Your task to perform on an android device: Do I have any events this weekend? Image 0: 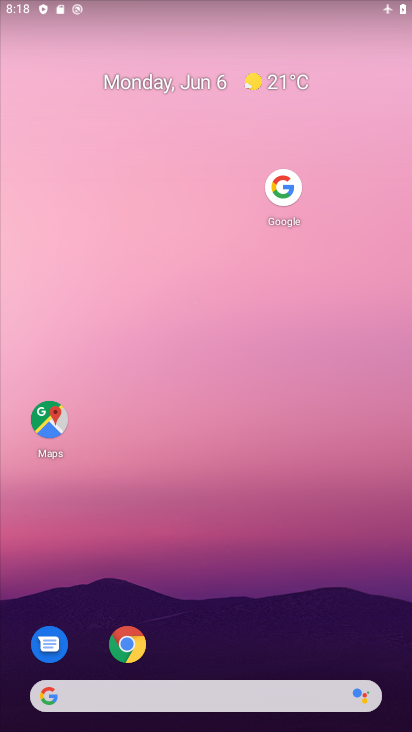
Step 0: drag from (207, 656) to (386, 554)
Your task to perform on an android device: Do I have any events this weekend? Image 1: 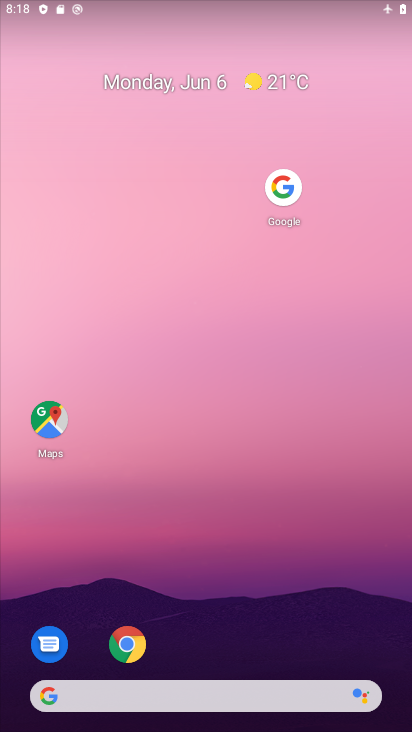
Step 1: drag from (238, 679) to (178, 52)
Your task to perform on an android device: Do I have any events this weekend? Image 2: 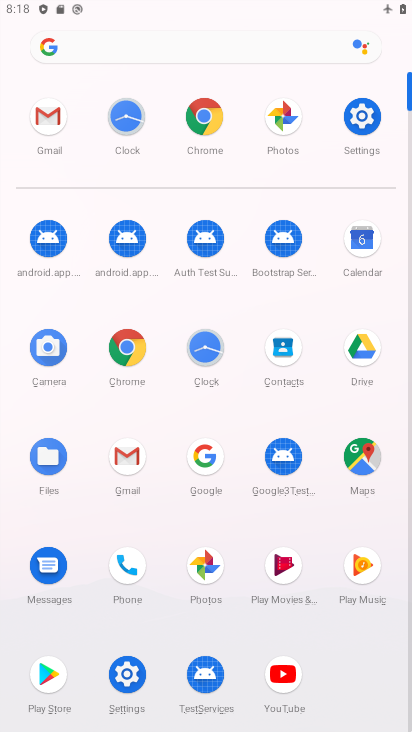
Step 2: click (345, 249)
Your task to perform on an android device: Do I have any events this weekend? Image 3: 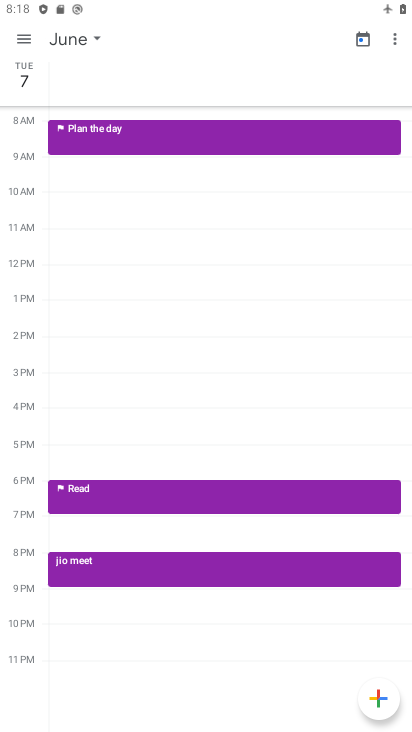
Step 3: click (20, 32)
Your task to perform on an android device: Do I have any events this weekend? Image 4: 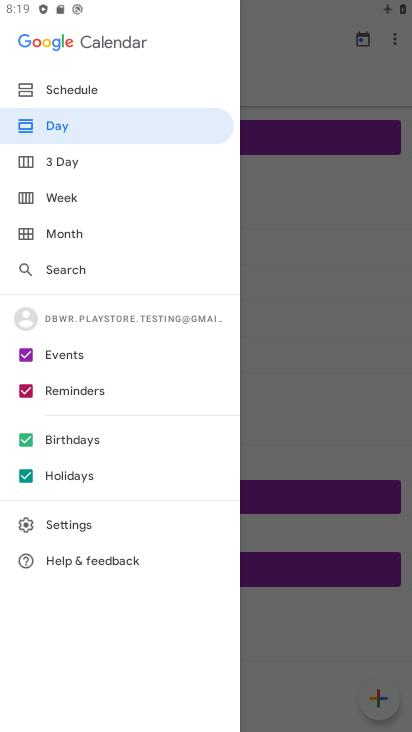
Step 4: click (64, 199)
Your task to perform on an android device: Do I have any events this weekend? Image 5: 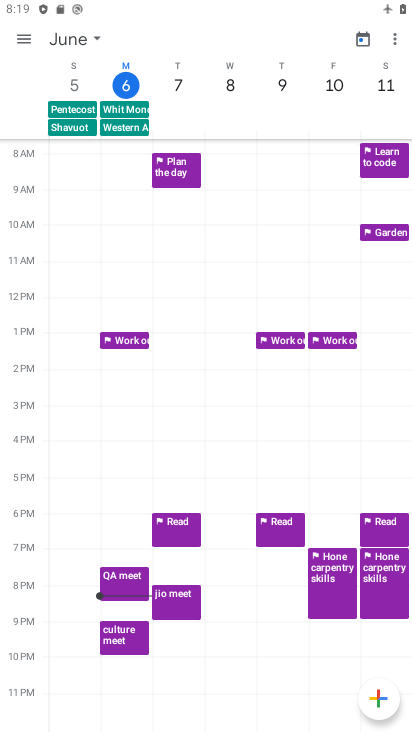
Step 5: task complete